Your task to perform on an android device: Do I have any events today? Image 0: 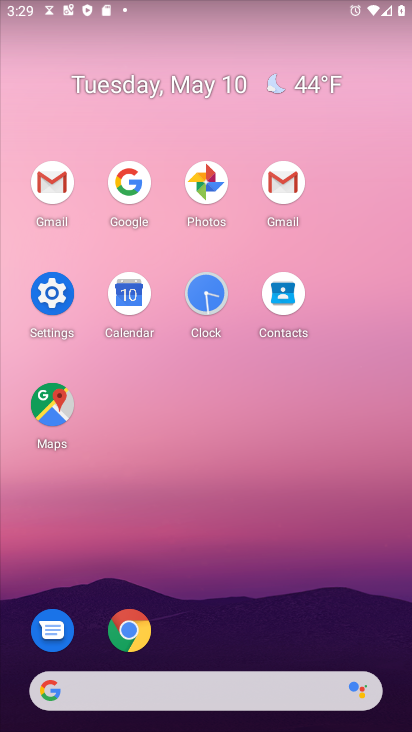
Step 0: click (125, 289)
Your task to perform on an android device: Do I have any events today? Image 1: 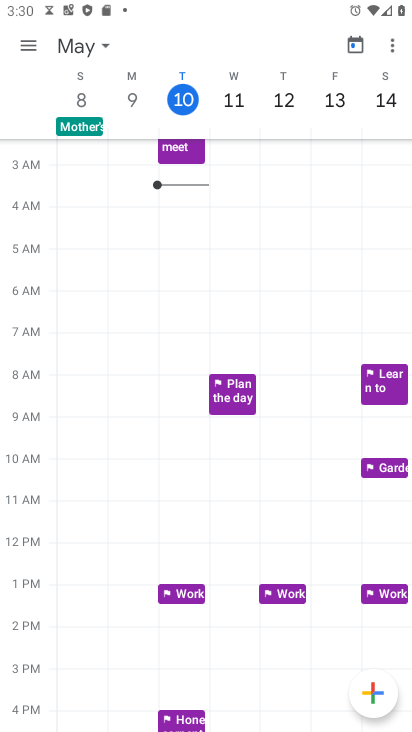
Step 1: click (196, 98)
Your task to perform on an android device: Do I have any events today? Image 2: 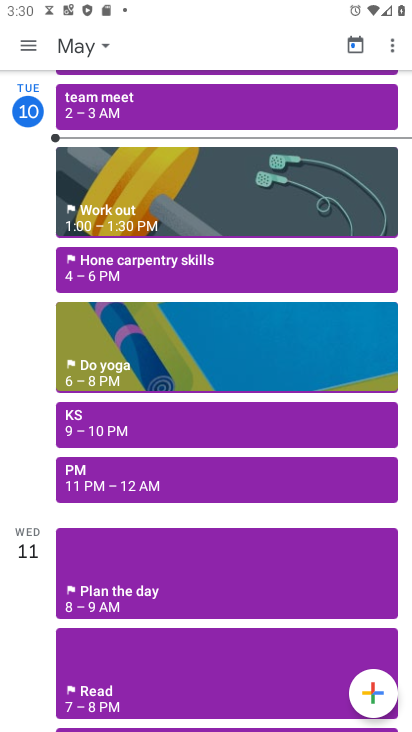
Step 2: task complete